Your task to perform on an android device: change the clock display to digital Image 0: 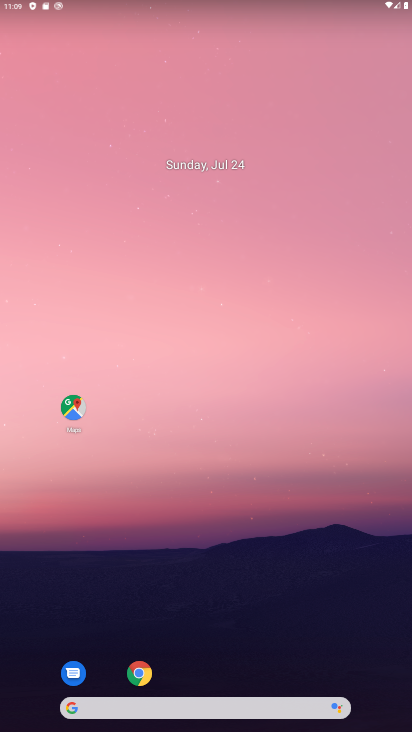
Step 0: drag from (380, 547) to (346, 3)
Your task to perform on an android device: change the clock display to digital Image 1: 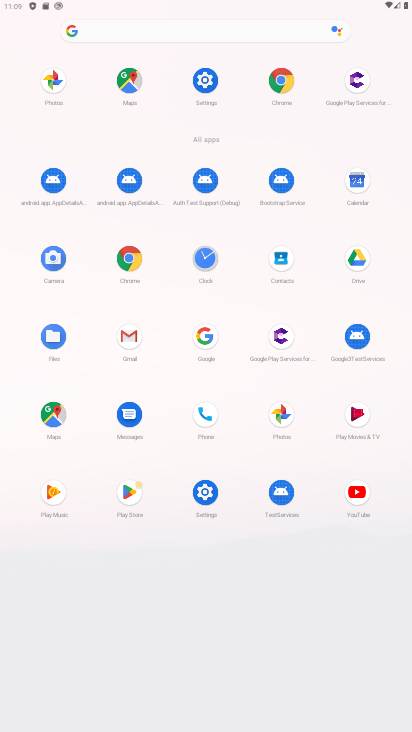
Step 1: click (210, 257)
Your task to perform on an android device: change the clock display to digital Image 2: 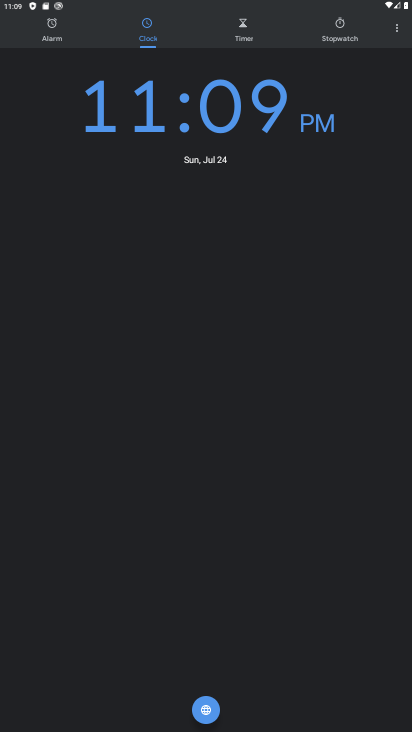
Step 2: click (399, 34)
Your task to perform on an android device: change the clock display to digital Image 3: 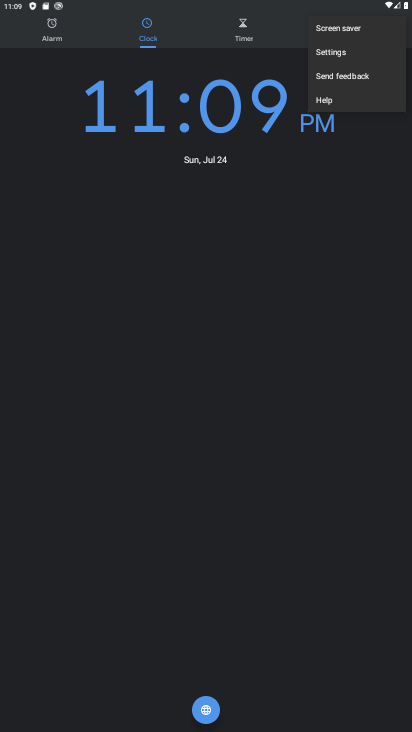
Step 3: click (331, 54)
Your task to perform on an android device: change the clock display to digital Image 4: 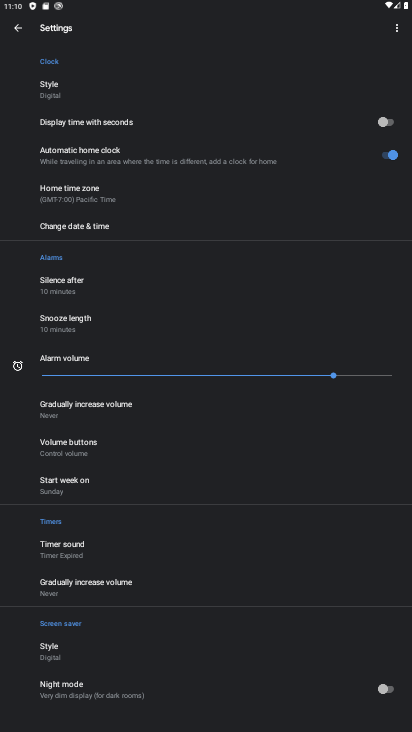
Step 4: click (46, 96)
Your task to perform on an android device: change the clock display to digital Image 5: 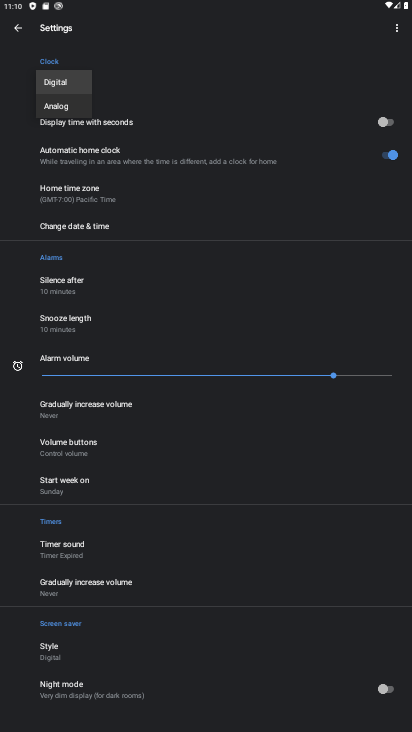
Step 5: task complete